Your task to perform on an android device: Open Yahoo.com Image 0: 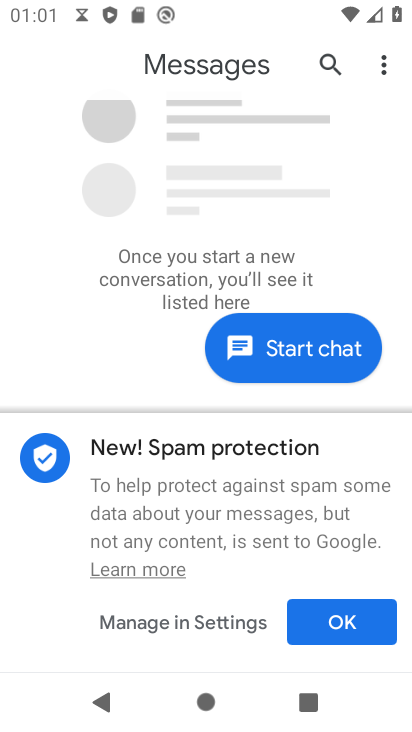
Step 0: press home button
Your task to perform on an android device: Open Yahoo.com Image 1: 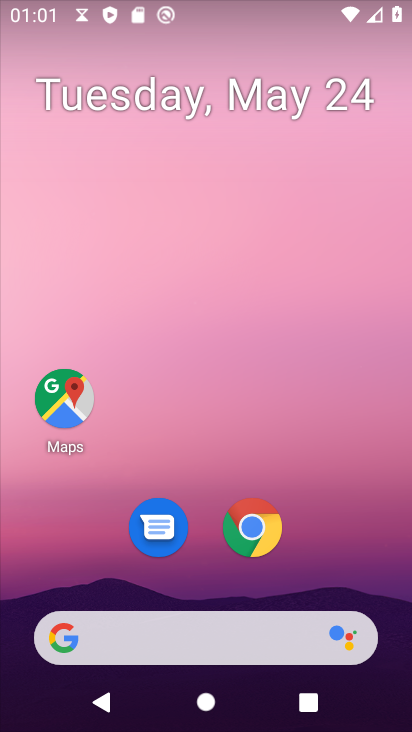
Step 1: click (258, 536)
Your task to perform on an android device: Open Yahoo.com Image 2: 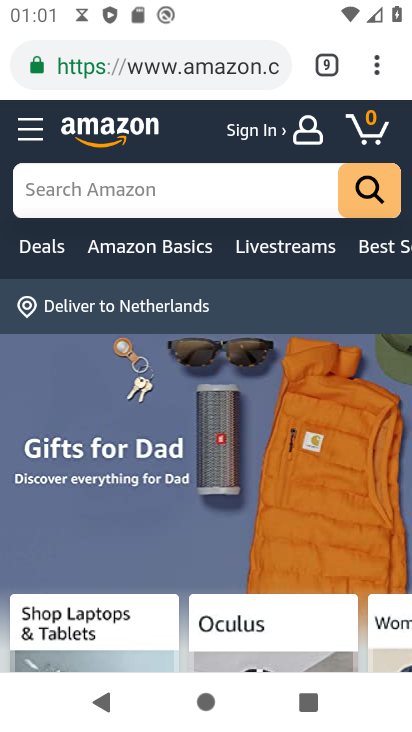
Step 2: drag from (378, 63) to (245, 129)
Your task to perform on an android device: Open Yahoo.com Image 3: 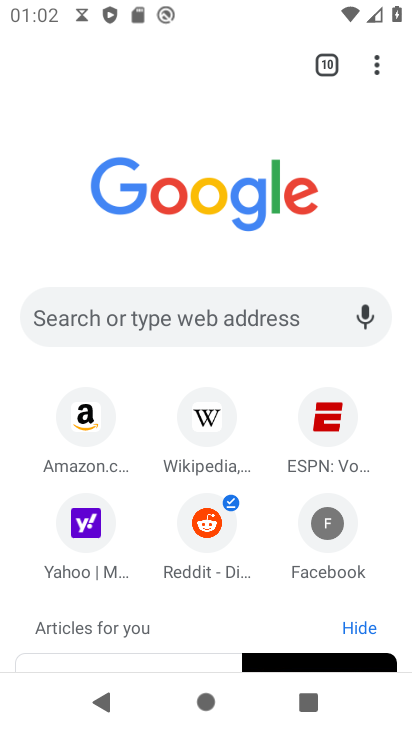
Step 3: click (81, 526)
Your task to perform on an android device: Open Yahoo.com Image 4: 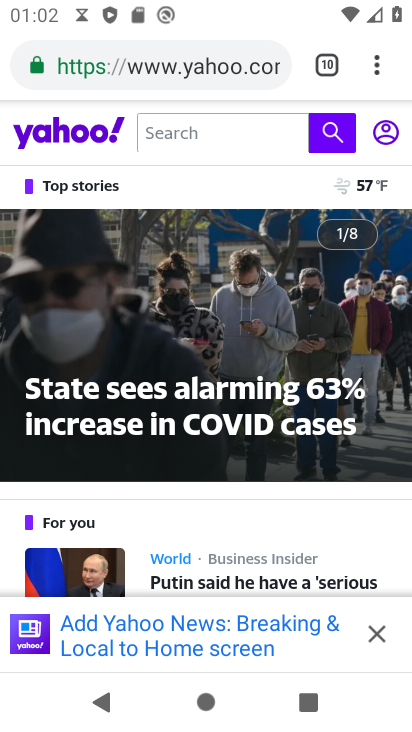
Step 4: task complete